Your task to perform on an android device: open app "eBay: The shopping marketplace" (install if not already installed), go to login, and select forgot password Image 0: 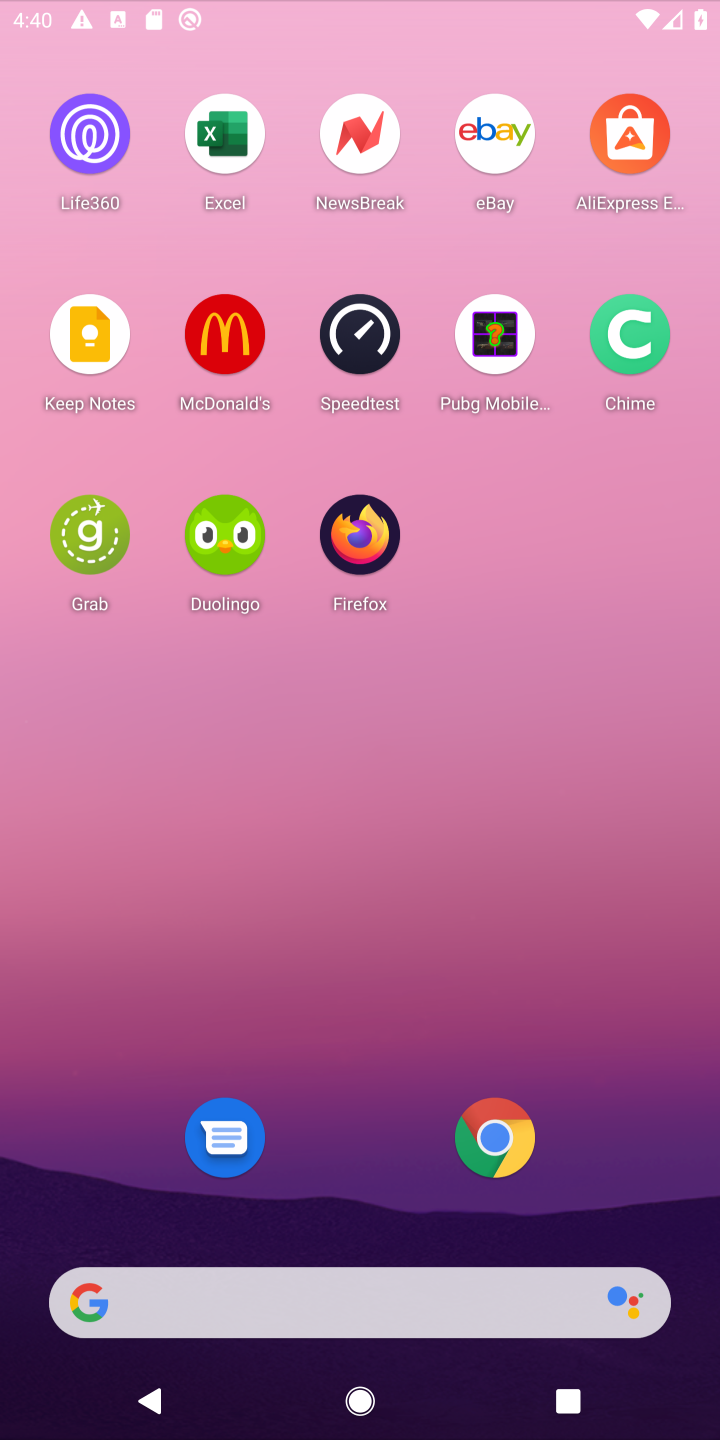
Step 0: press home button
Your task to perform on an android device: open app "eBay: The shopping marketplace" (install if not already installed), go to login, and select forgot password Image 1: 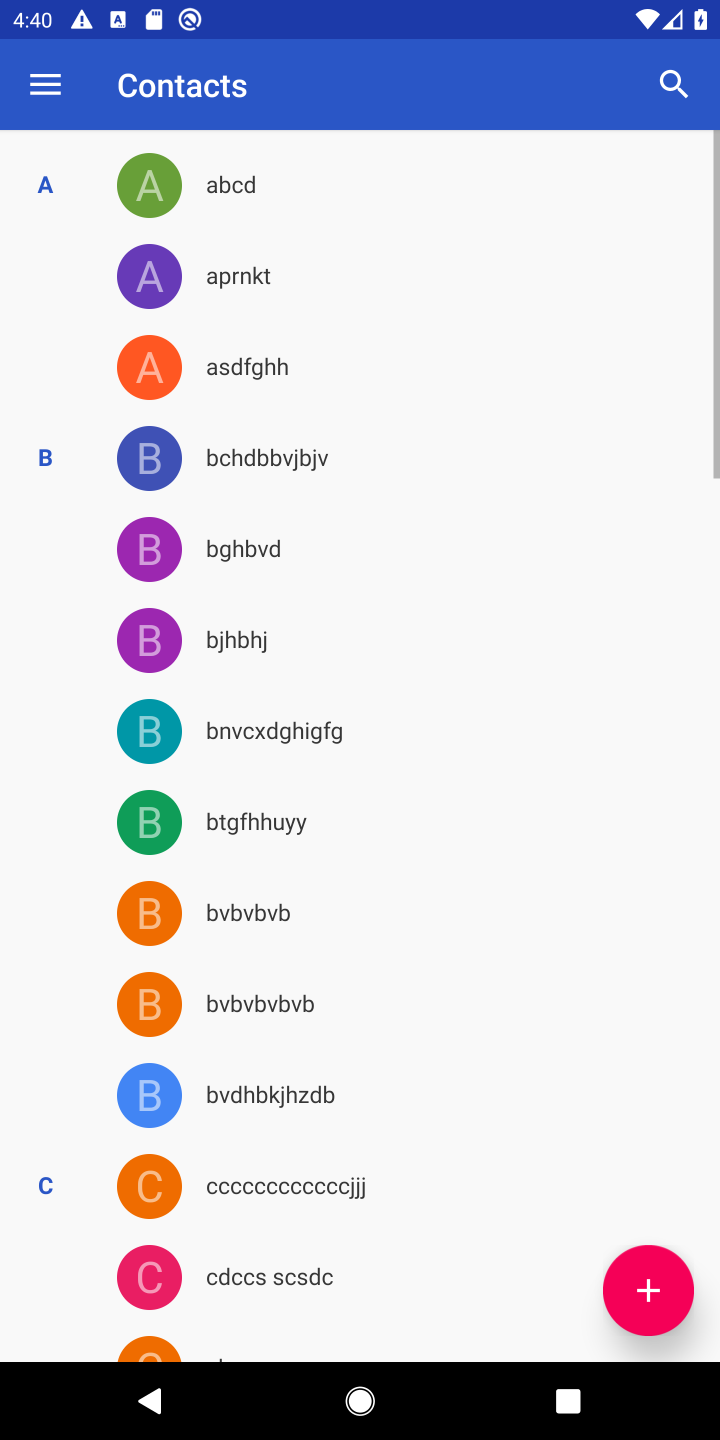
Step 1: drag from (350, 845) to (375, 199)
Your task to perform on an android device: open app "eBay: The shopping marketplace" (install if not already installed), go to login, and select forgot password Image 2: 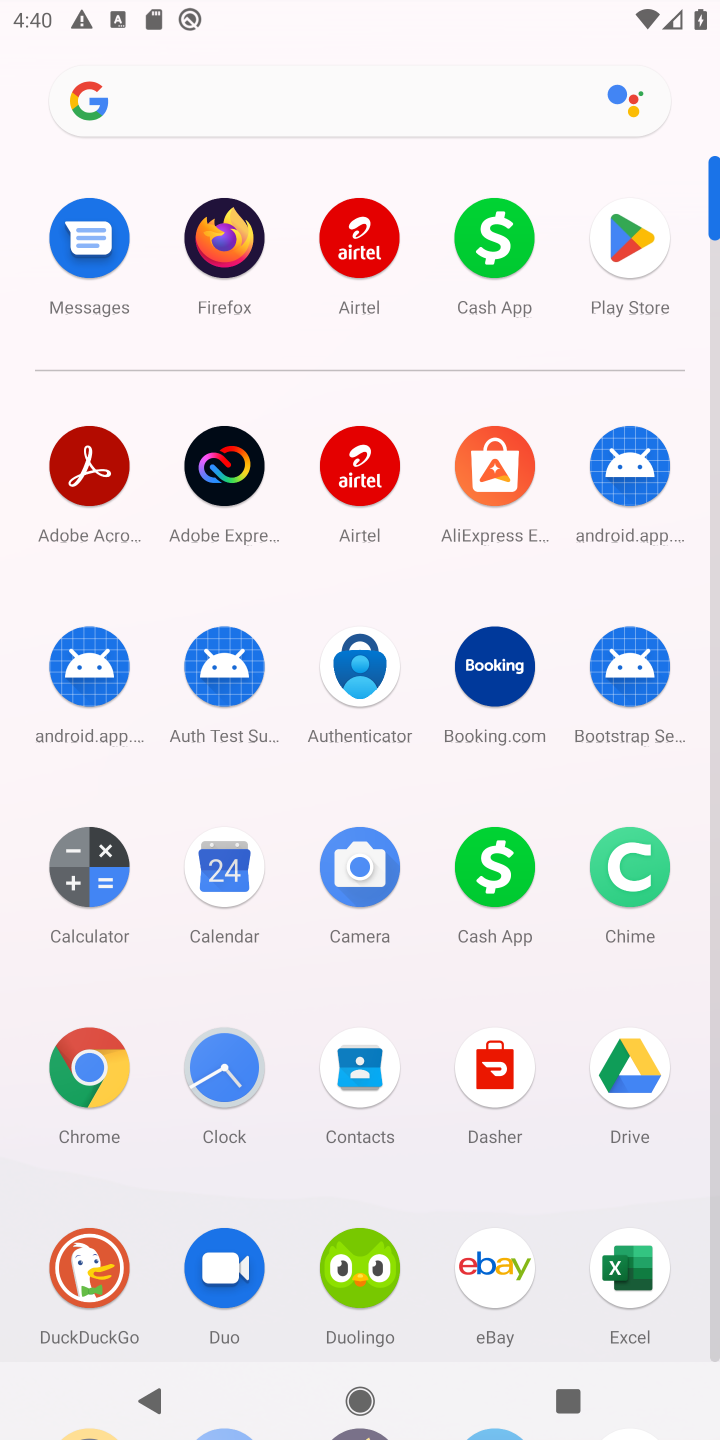
Step 2: click (627, 233)
Your task to perform on an android device: open app "eBay: The shopping marketplace" (install if not already installed), go to login, and select forgot password Image 3: 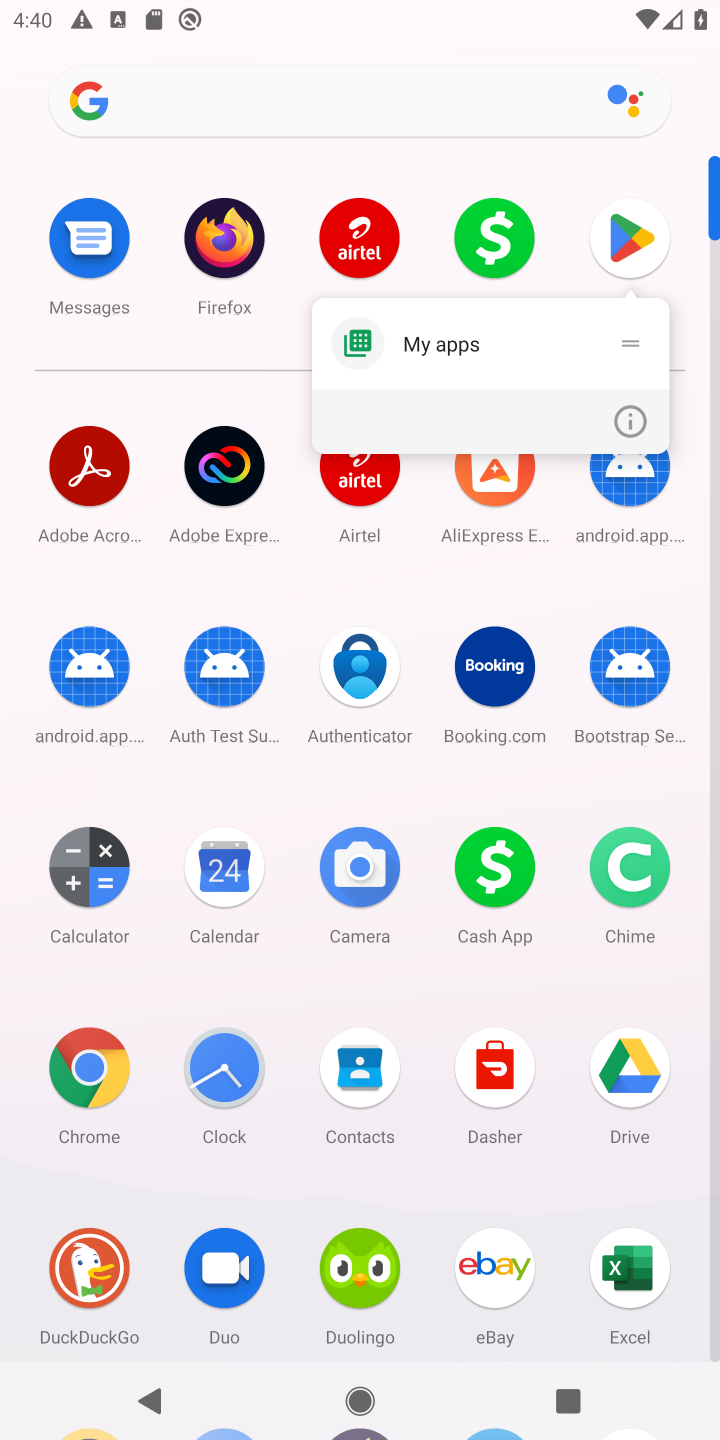
Step 3: click (627, 233)
Your task to perform on an android device: open app "eBay: The shopping marketplace" (install if not already installed), go to login, and select forgot password Image 4: 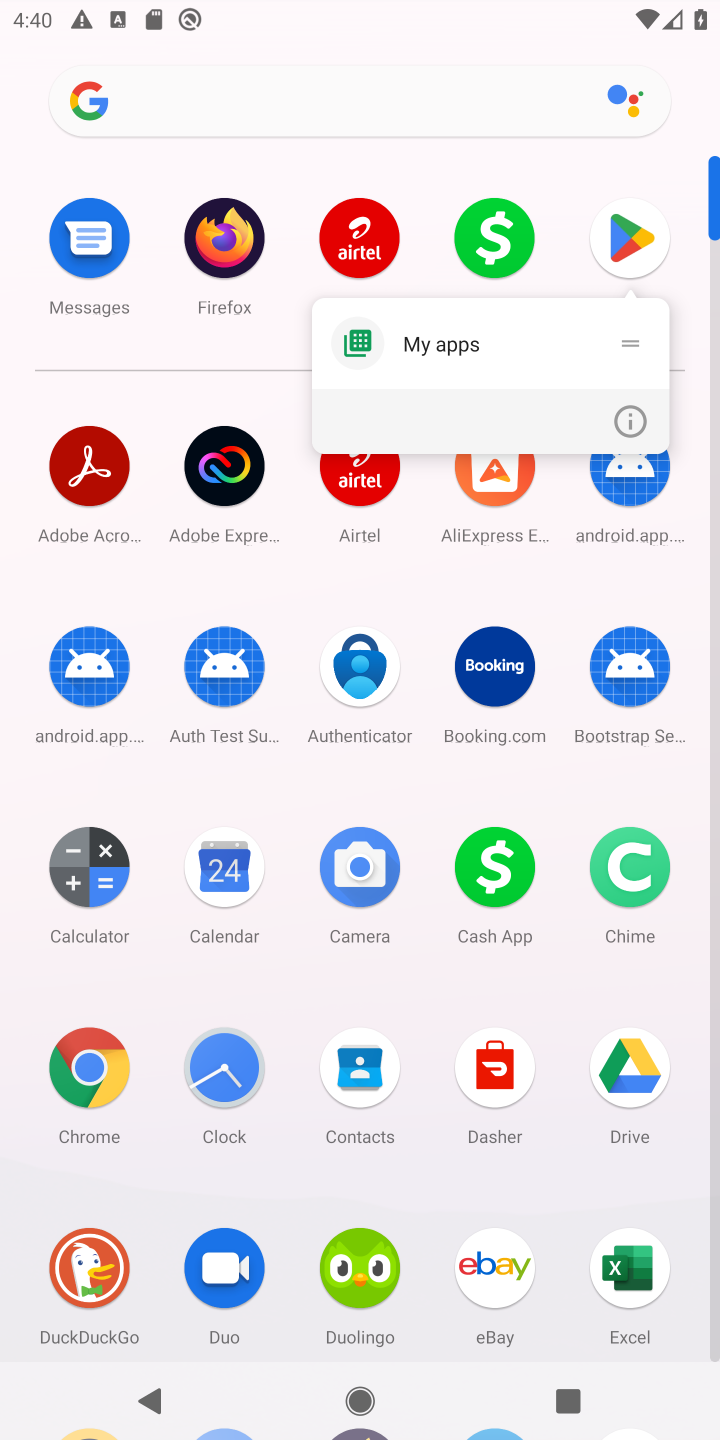
Step 4: click (624, 235)
Your task to perform on an android device: open app "eBay: The shopping marketplace" (install if not already installed), go to login, and select forgot password Image 5: 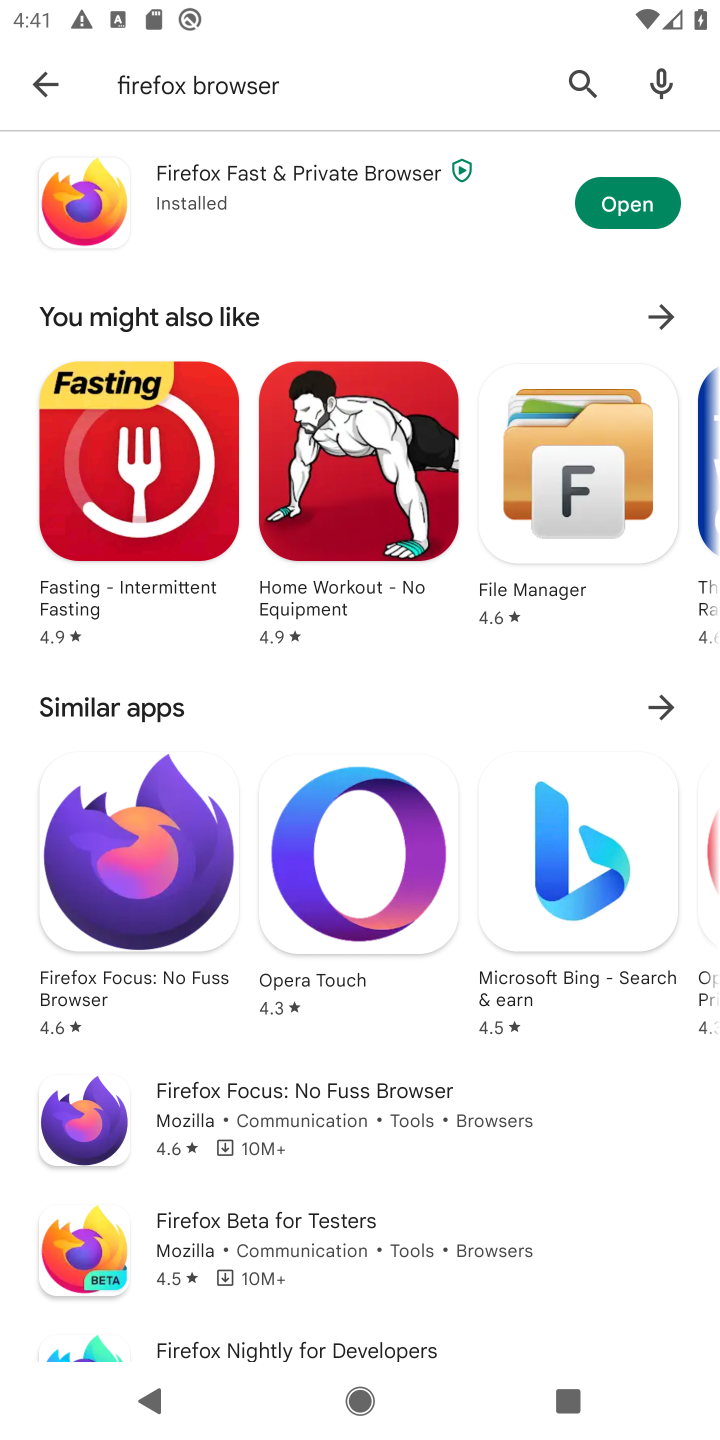
Step 5: click (581, 69)
Your task to perform on an android device: open app "eBay: The shopping marketplace" (install if not already installed), go to login, and select forgot password Image 6: 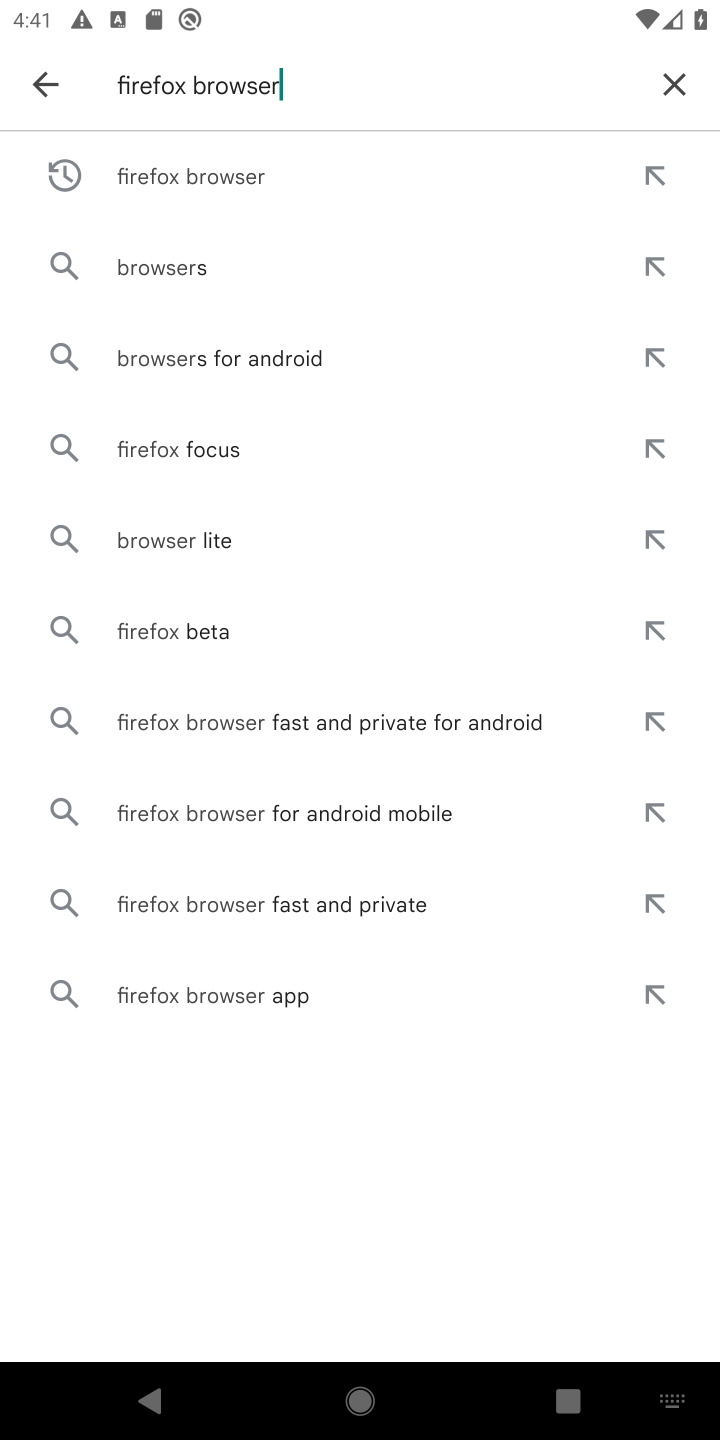
Step 6: click (671, 81)
Your task to perform on an android device: open app "eBay: The shopping marketplace" (install if not already installed), go to login, and select forgot password Image 7: 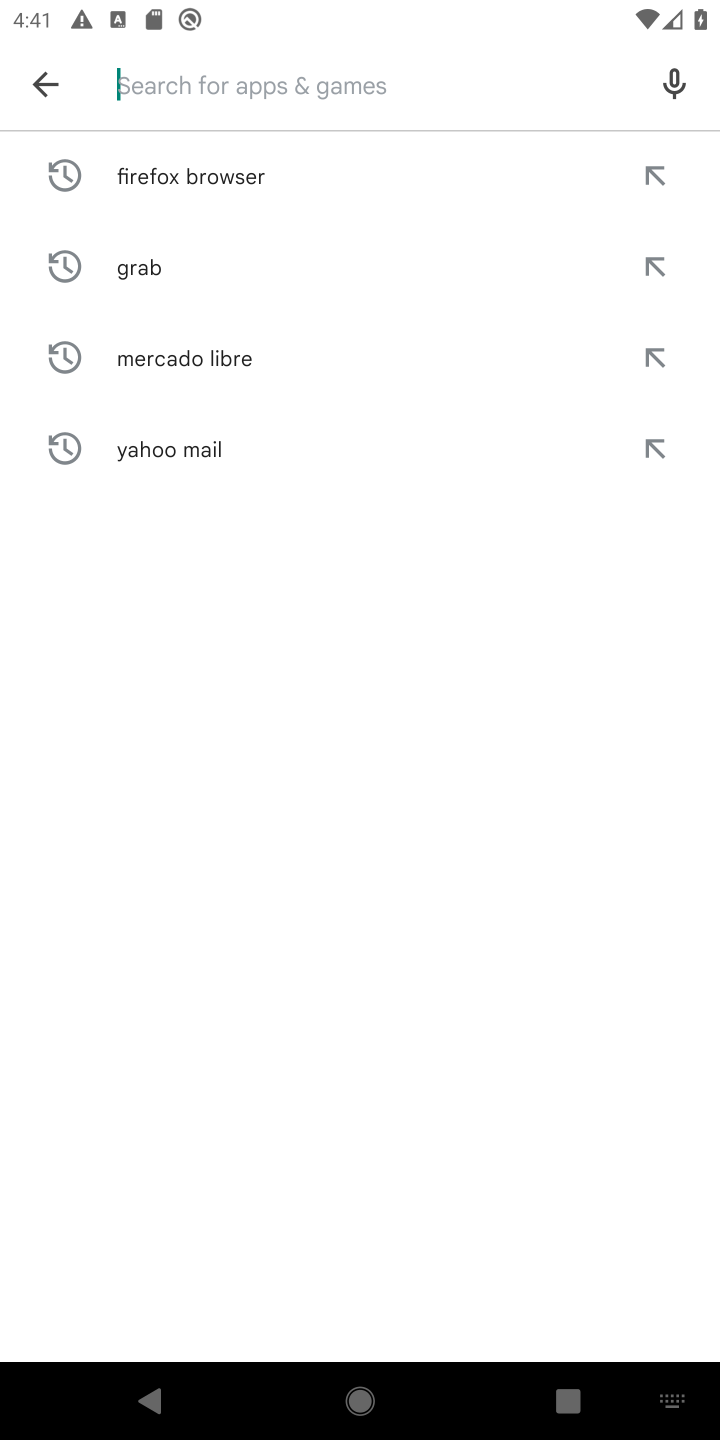
Step 7: type "eBay"
Your task to perform on an android device: open app "eBay: The shopping marketplace" (install if not already installed), go to login, and select forgot password Image 8: 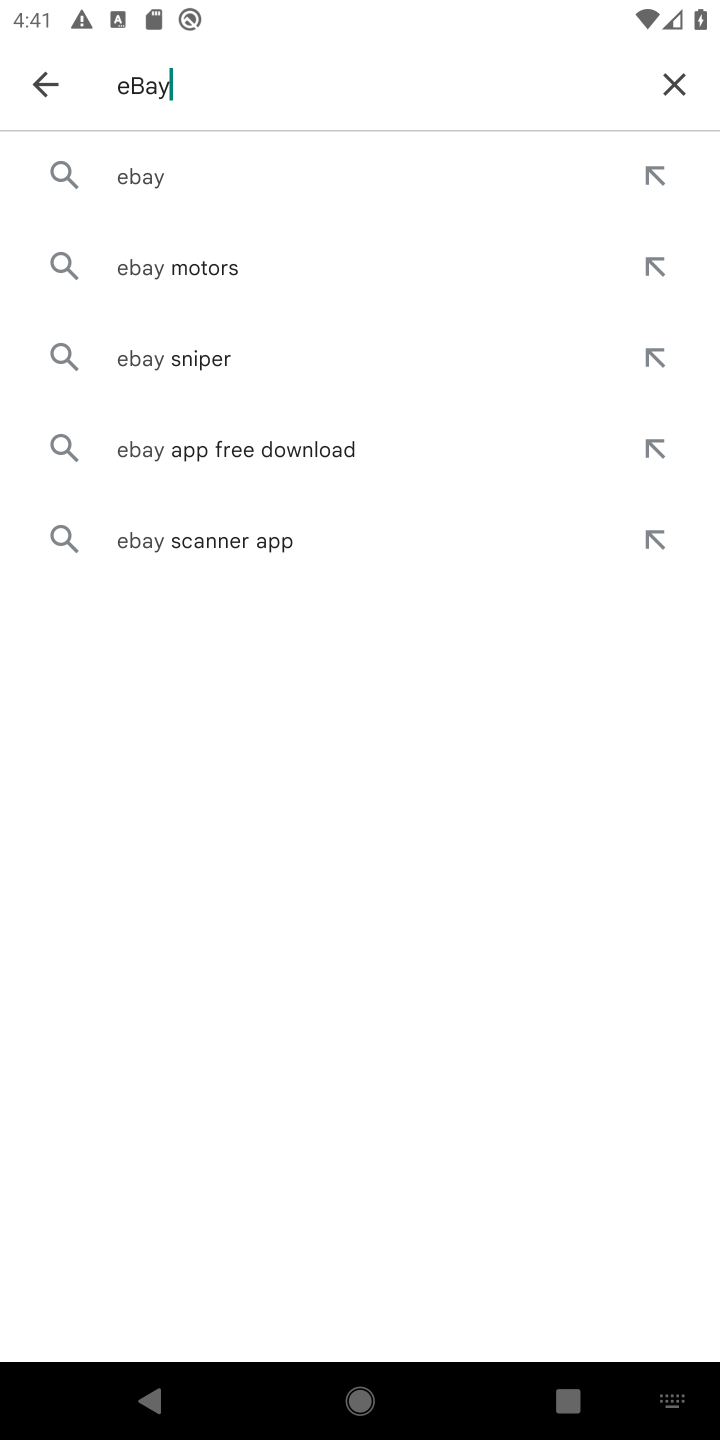
Step 8: type ""
Your task to perform on an android device: open app "eBay: The shopping marketplace" (install if not already installed), go to login, and select forgot password Image 9: 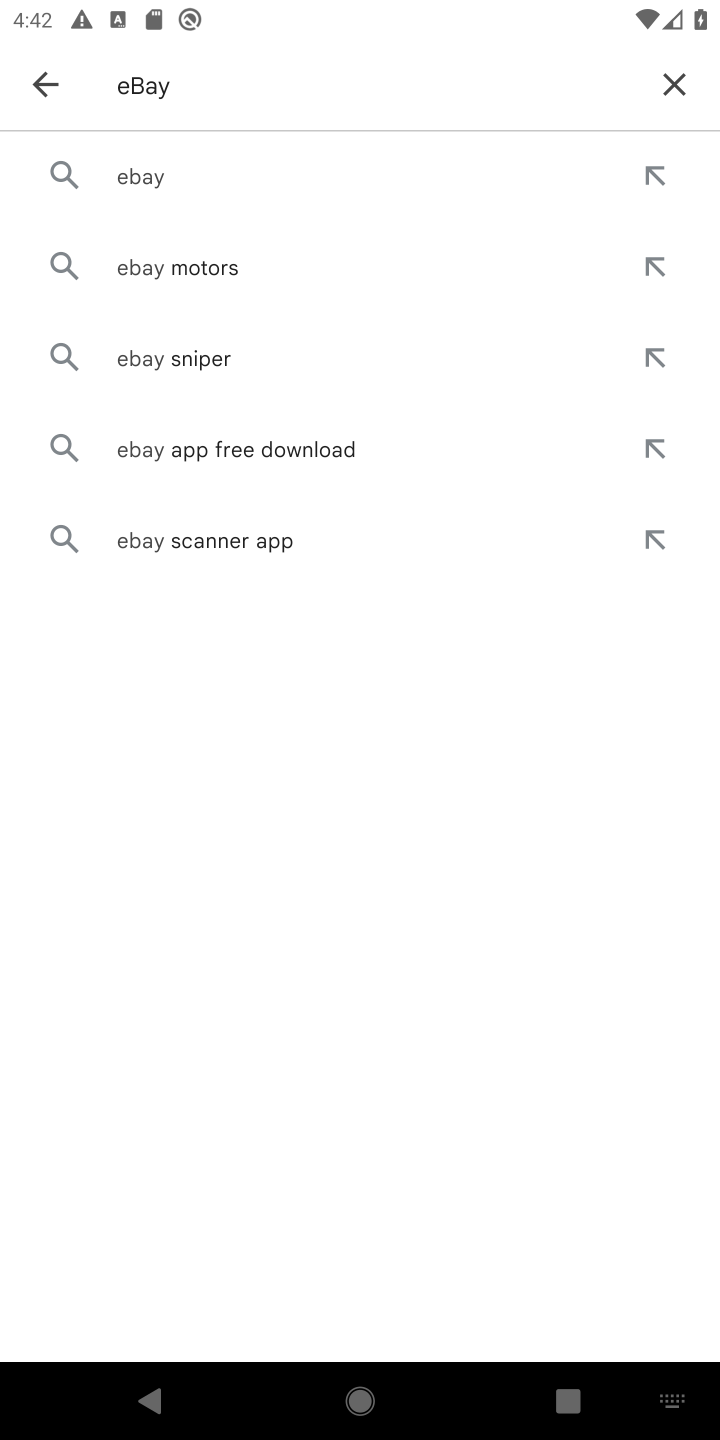
Step 9: click (133, 169)
Your task to perform on an android device: open app "eBay: The shopping marketplace" (install if not already installed), go to login, and select forgot password Image 10: 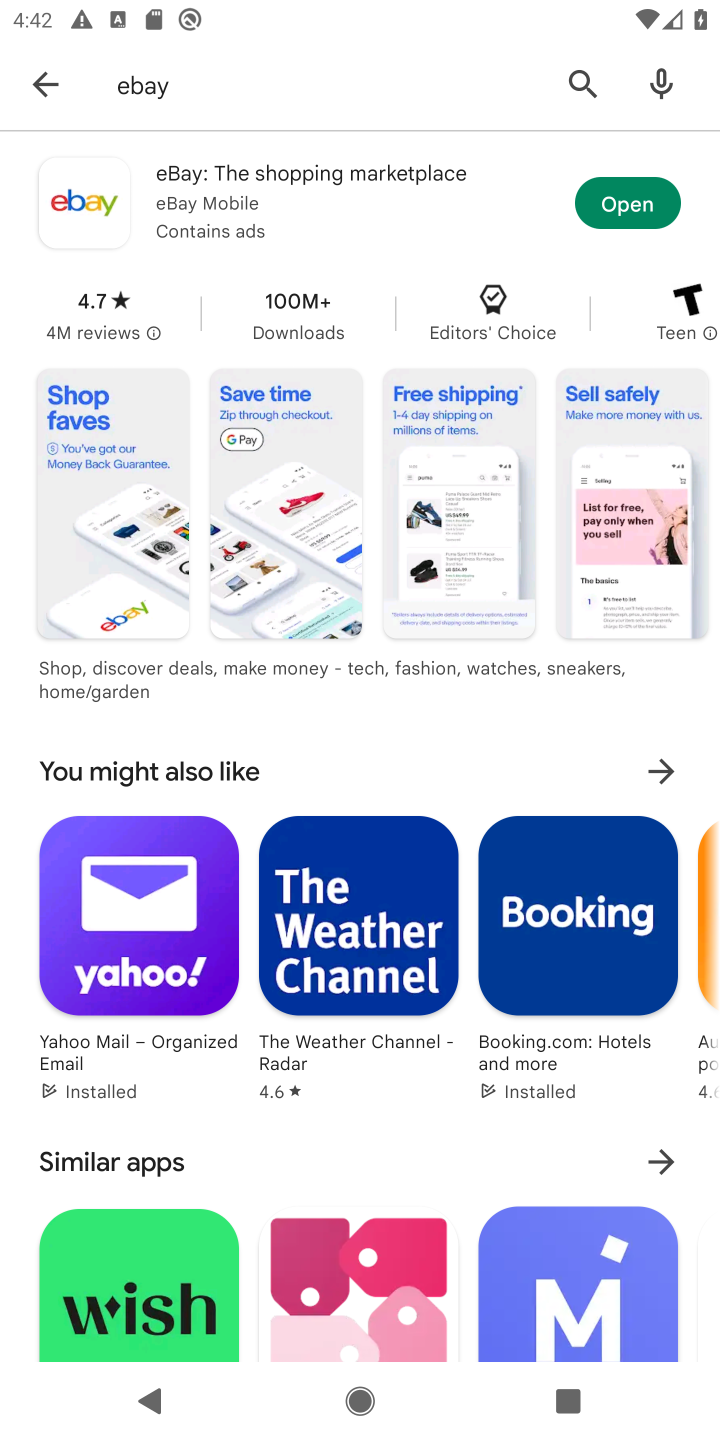
Step 10: click (626, 207)
Your task to perform on an android device: open app "eBay: The shopping marketplace" (install if not already installed), go to login, and select forgot password Image 11: 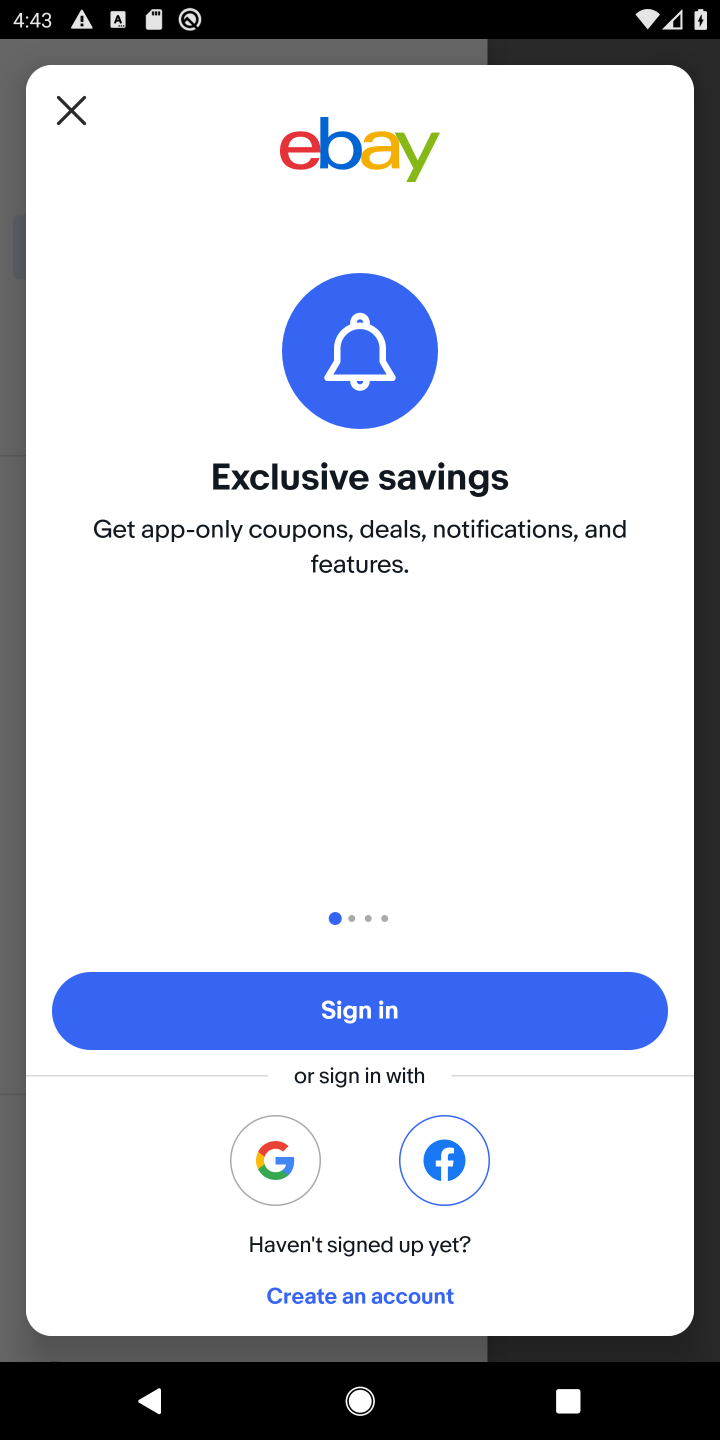
Step 11: click (375, 1017)
Your task to perform on an android device: open app "eBay: The shopping marketplace" (install if not already installed), go to login, and select forgot password Image 12: 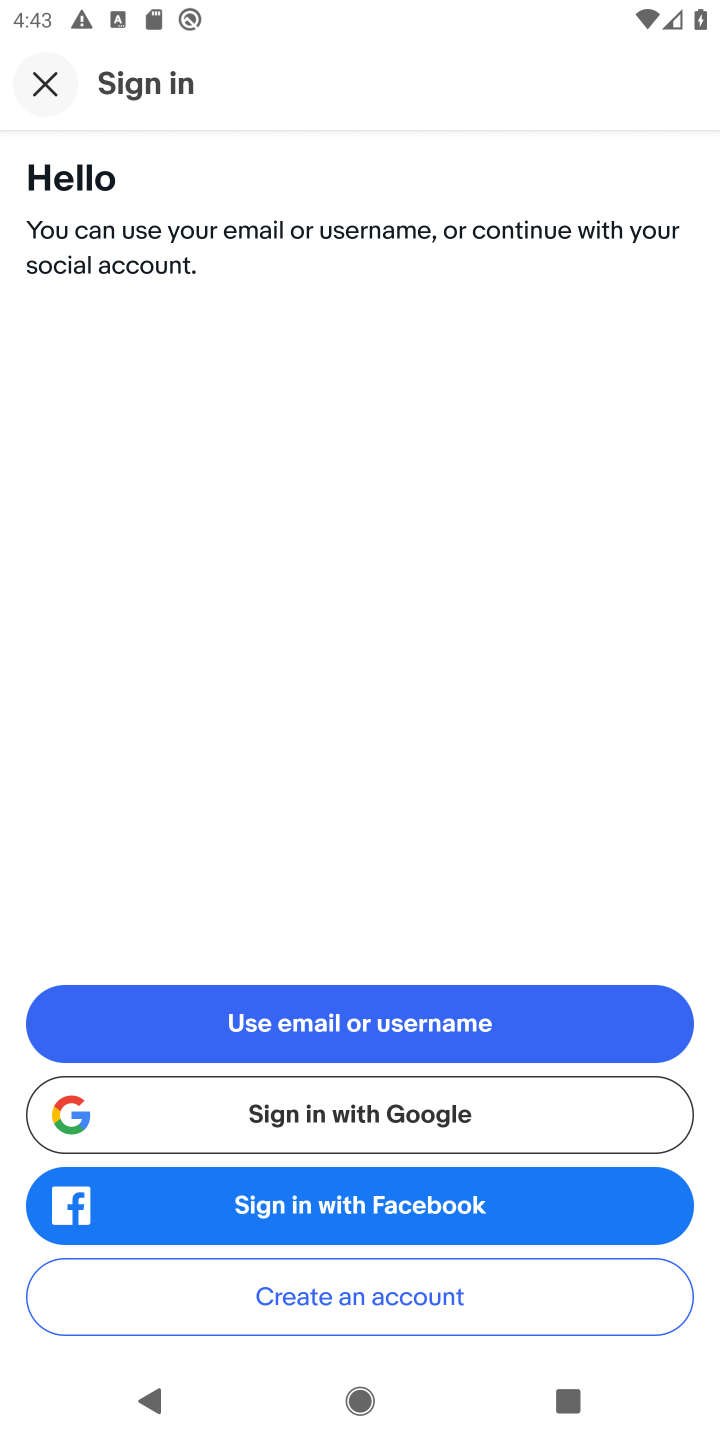
Step 12: drag from (224, 1231) to (239, 491)
Your task to perform on an android device: open app "eBay: The shopping marketplace" (install if not already installed), go to login, and select forgot password Image 13: 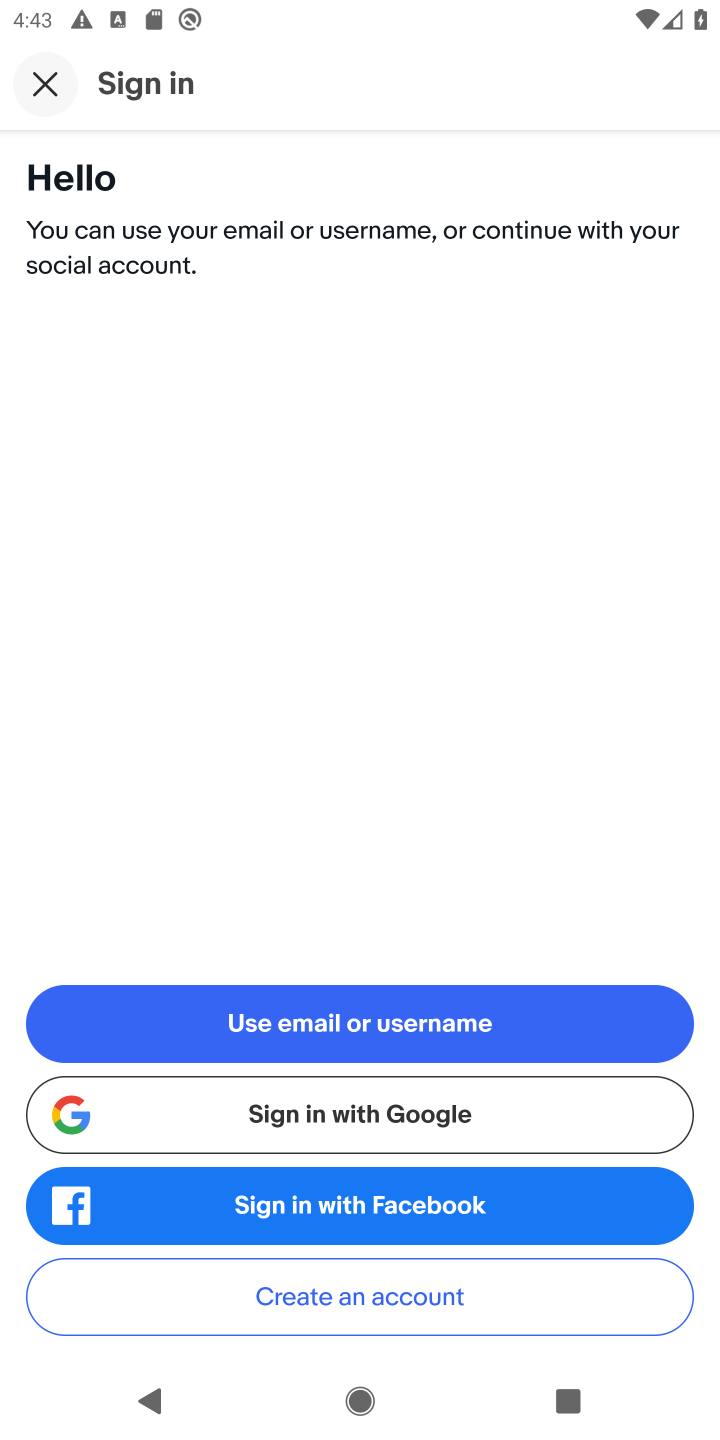
Step 13: click (368, 1039)
Your task to perform on an android device: open app "eBay: The shopping marketplace" (install if not already installed), go to login, and select forgot password Image 14: 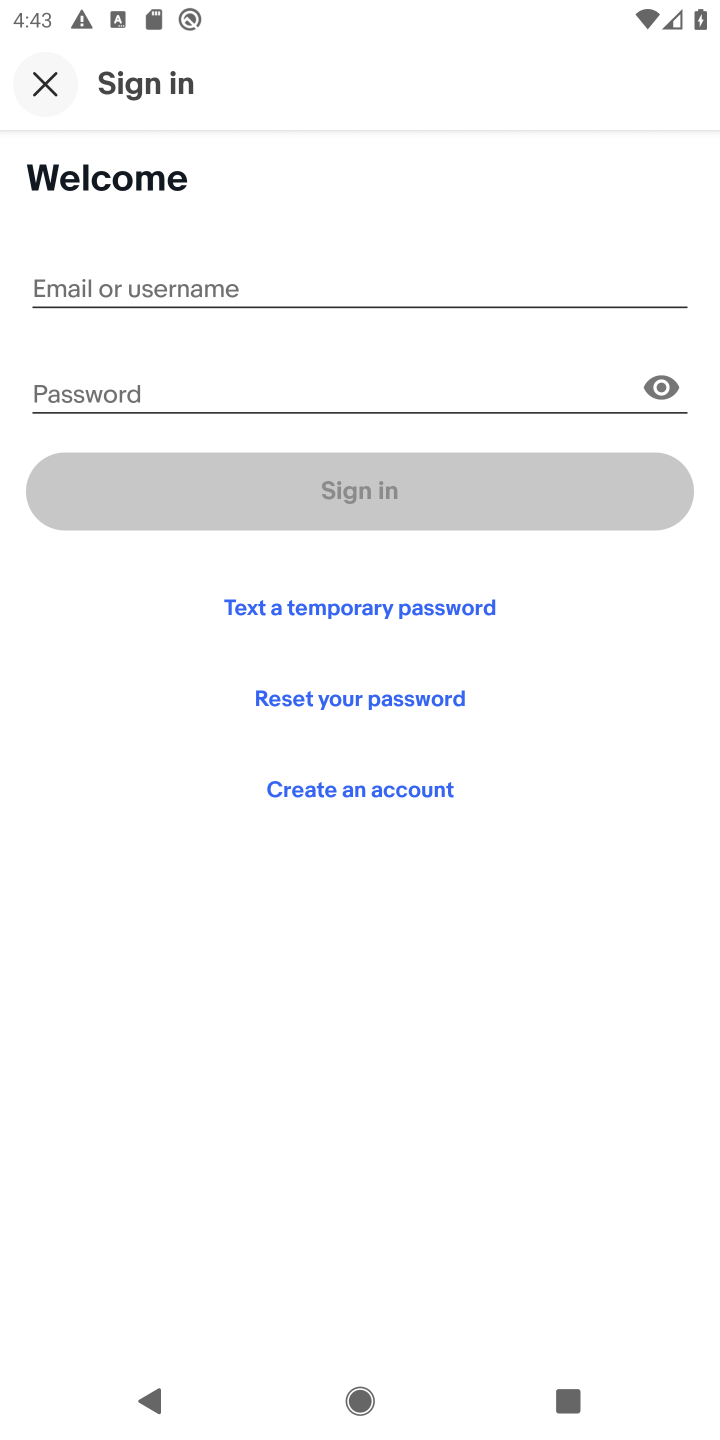
Step 14: click (390, 689)
Your task to perform on an android device: open app "eBay: The shopping marketplace" (install if not already installed), go to login, and select forgot password Image 15: 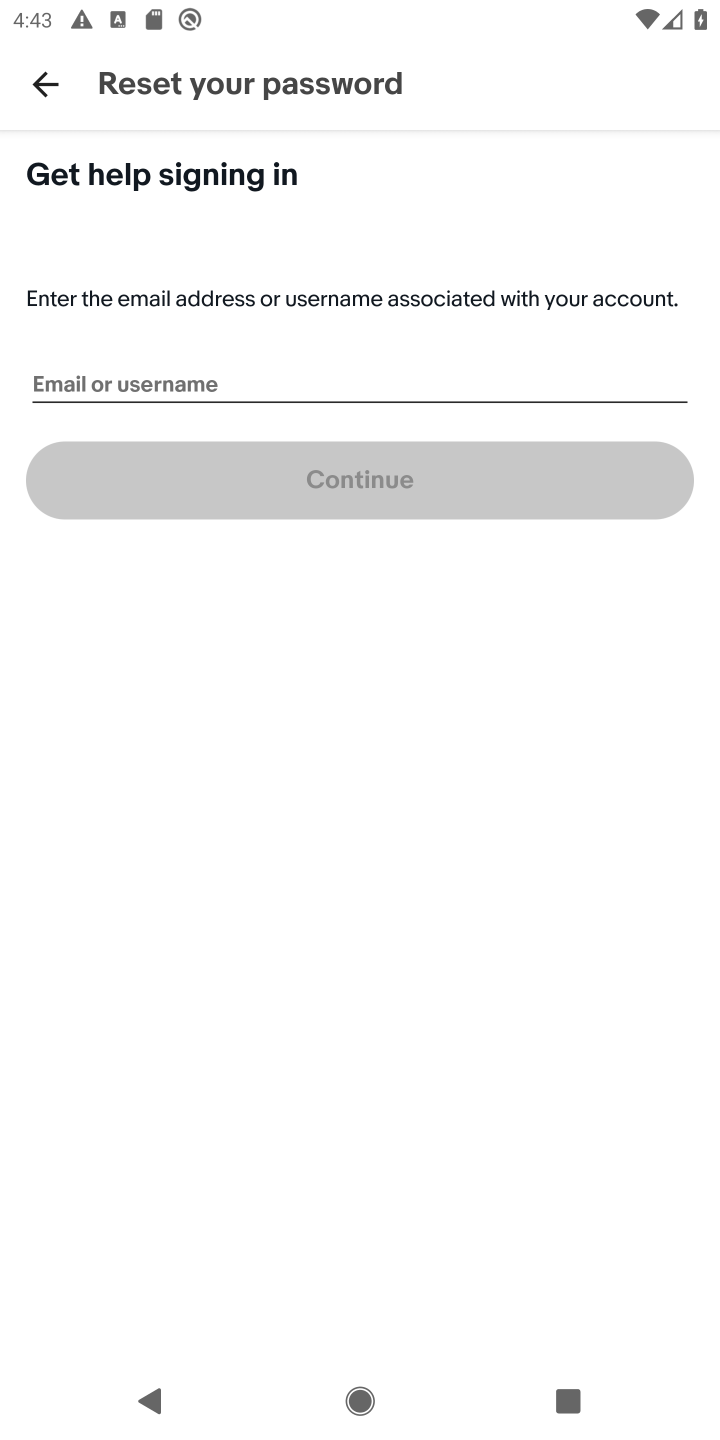
Step 15: task complete